Your task to perform on an android device: Add "acer predator" to the cart on ebay.com Image 0: 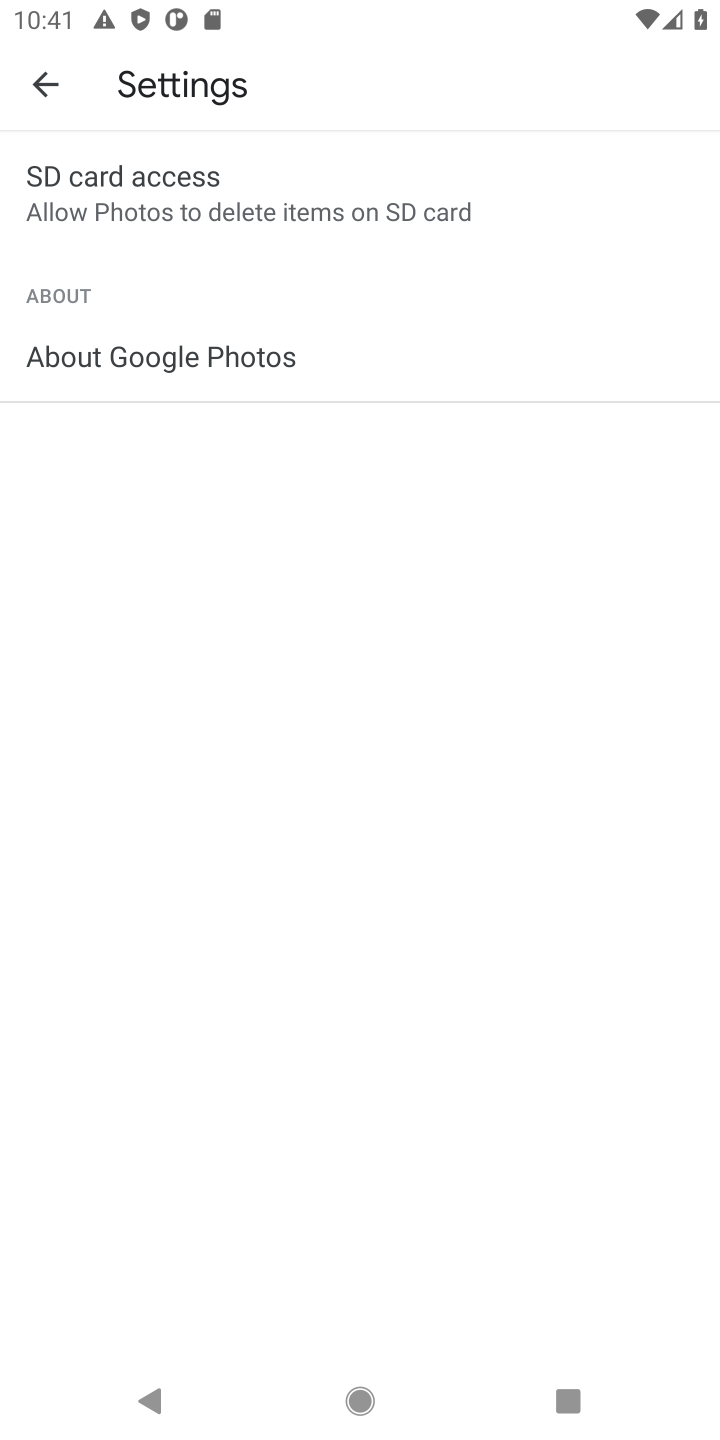
Step 0: press home button
Your task to perform on an android device: Add "acer predator" to the cart on ebay.com Image 1: 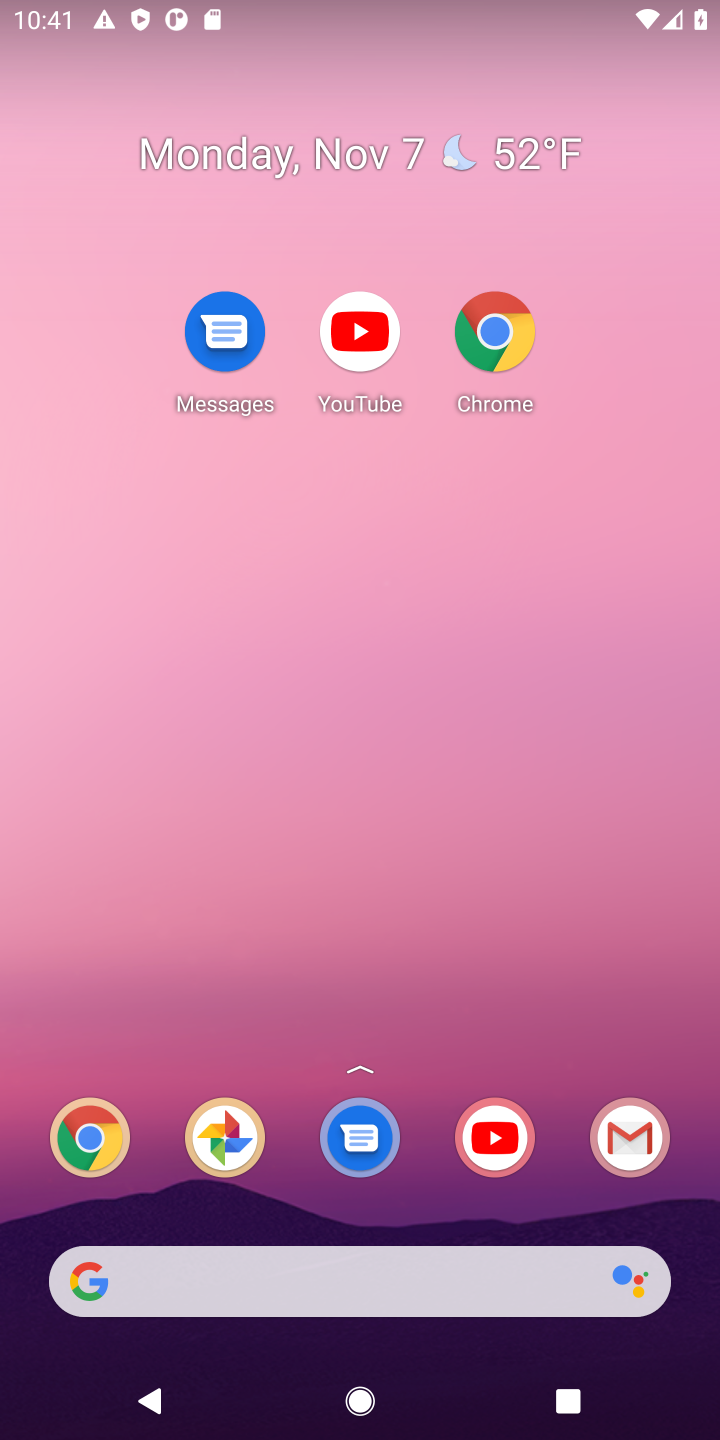
Step 1: drag from (436, 1241) to (326, 220)
Your task to perform on an android device: Add "acer predator" to the cart on ebay.com Image 2: 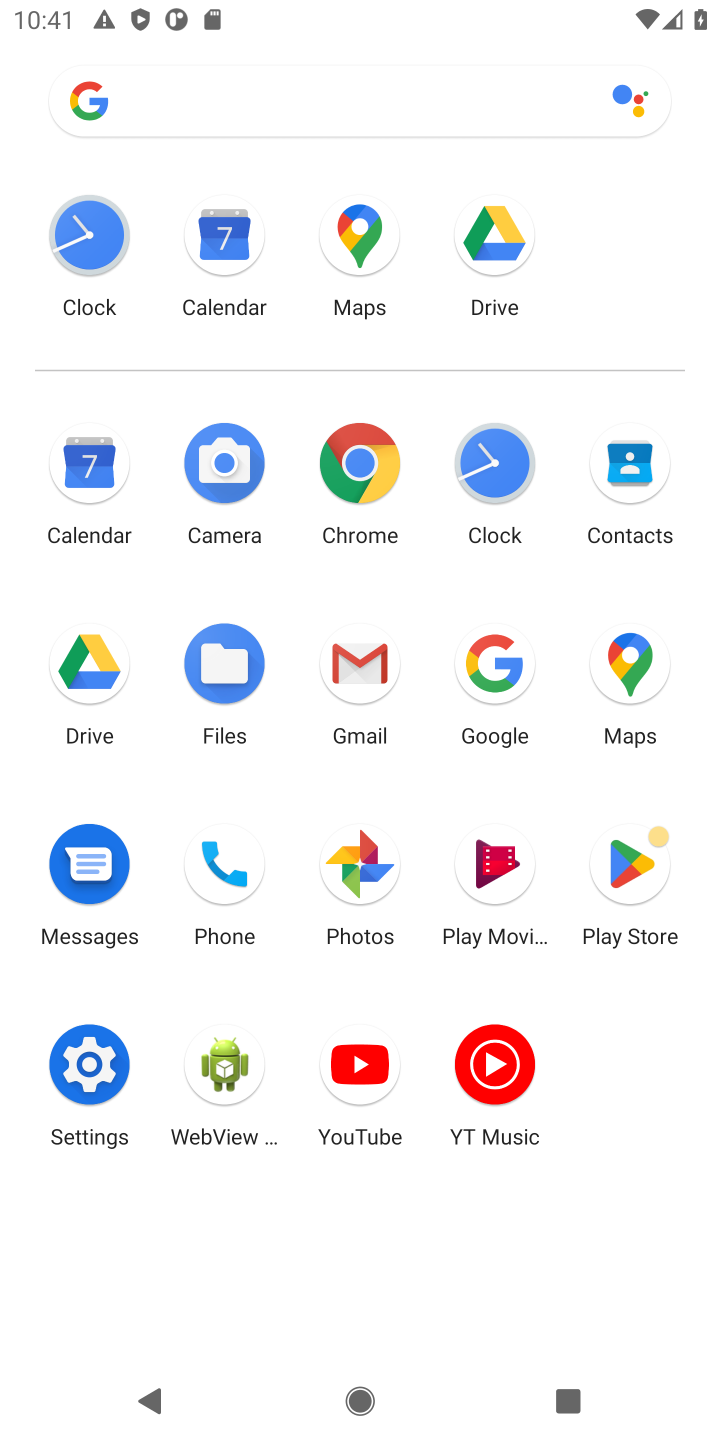
Step 2: click (354, 461)
Your task to perform on an android device: Add "acer predator" to the cart on ebay.com Image 3: 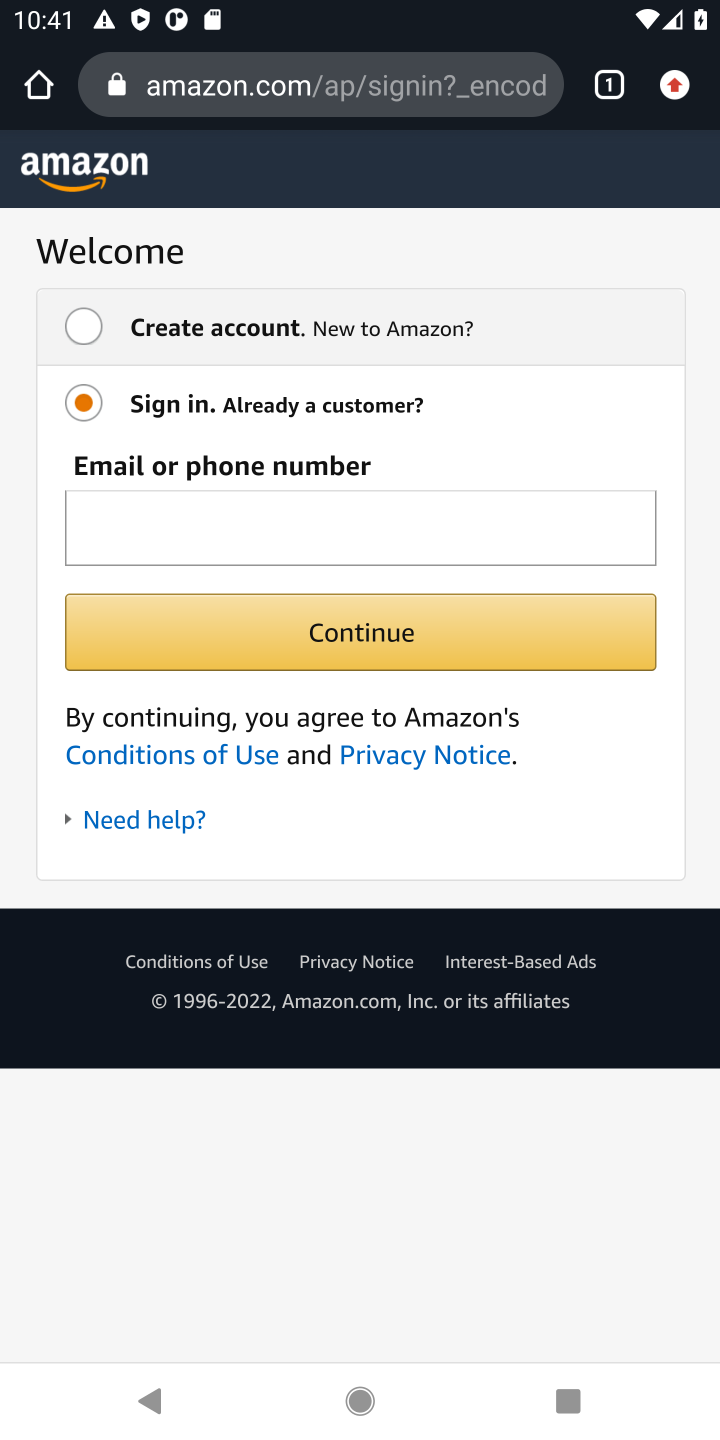
Step 3: click (429, 76)
Your task to perform on an android device: Add "acer predator" to the cart on ebay.com Image 4: 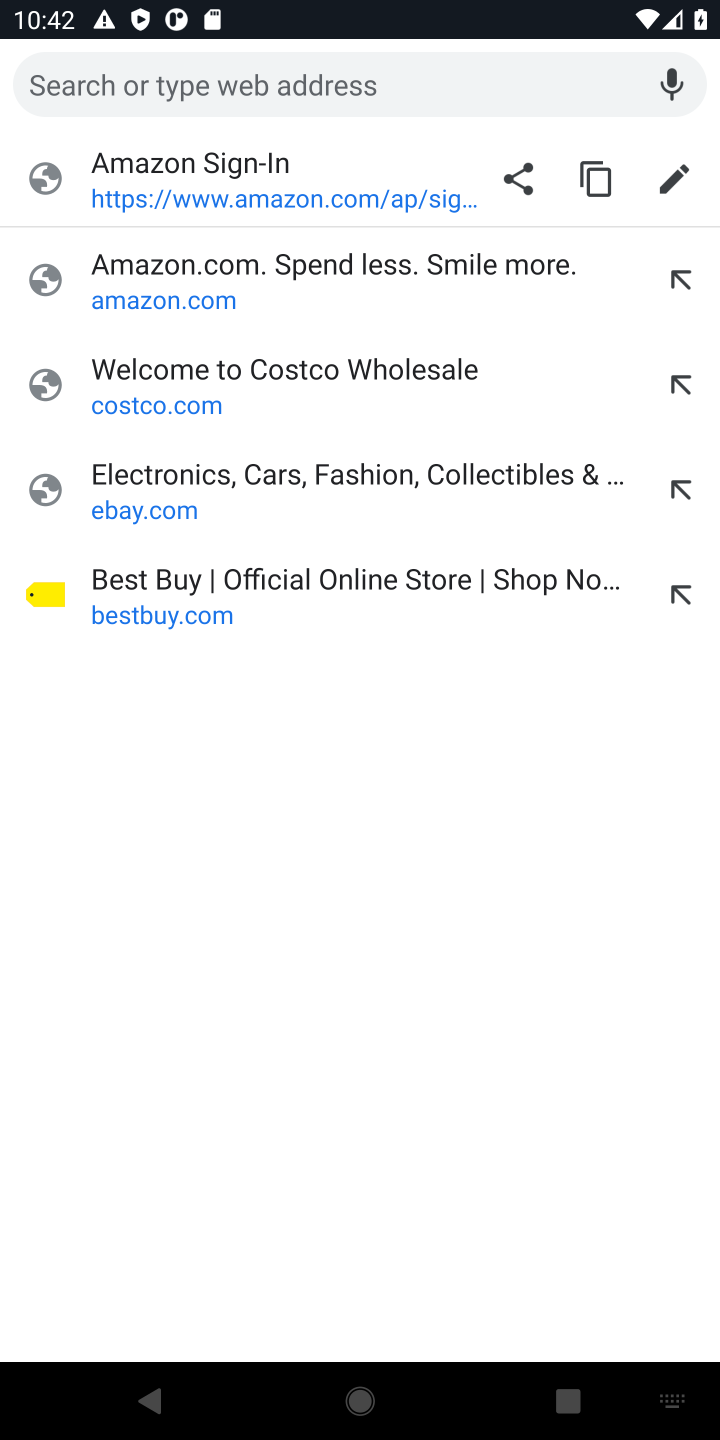
Step 4: type "ebay.com"
Your task to perform on an android device: Add "acer predator" to the cart on ebay.com Image 5: 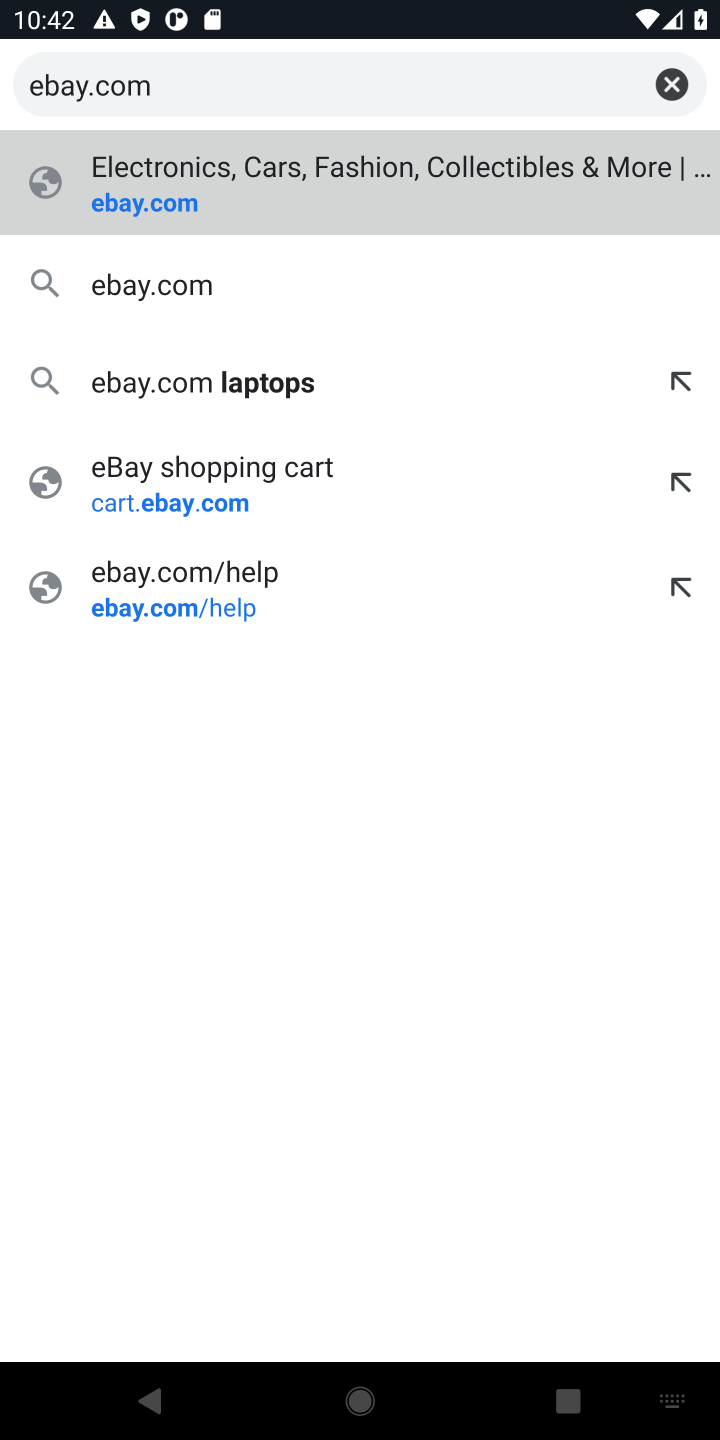
Step 5: press enter
Your task to perform on an android device: Add "acer predator" to the cart on ebay.com Image 6: 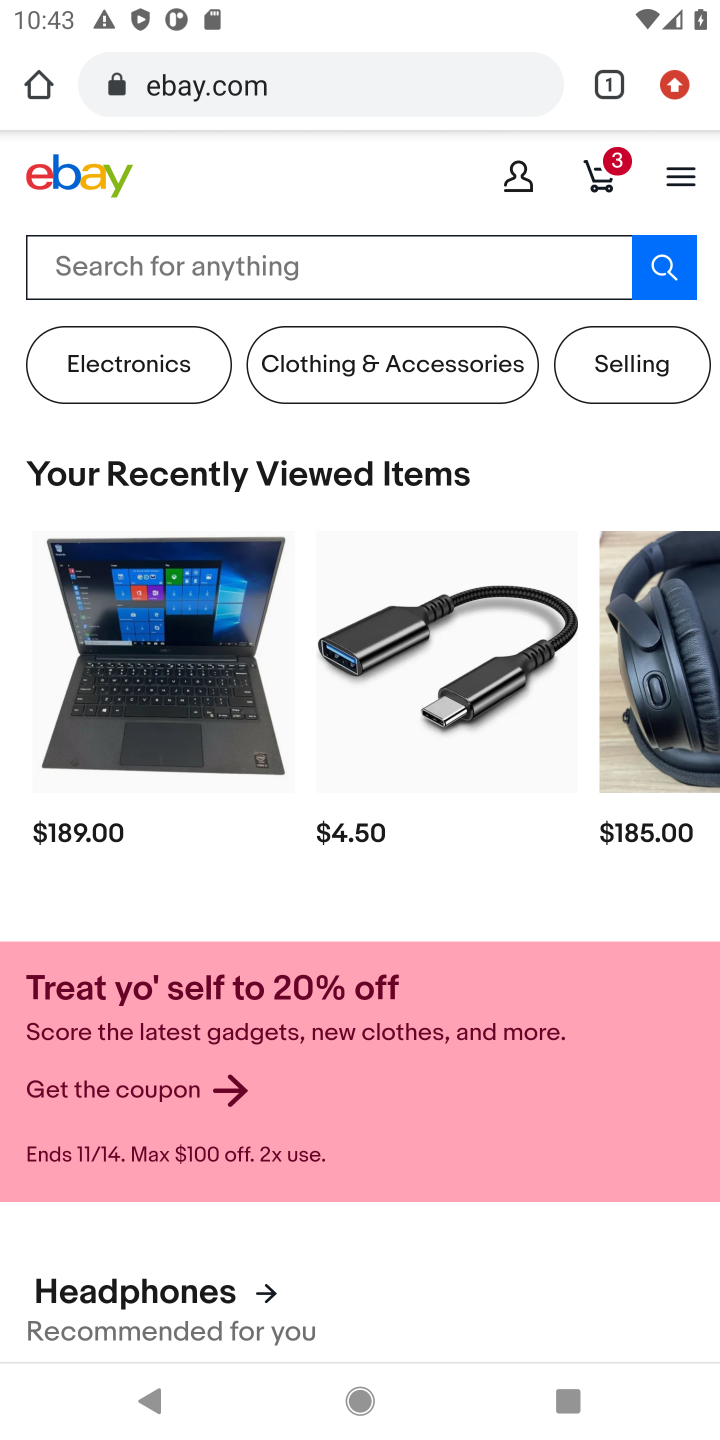
Step 6: click (452, 267)
Your task to perform on an android device: Add "acer predator" to the cart on ebay.com Image 7: 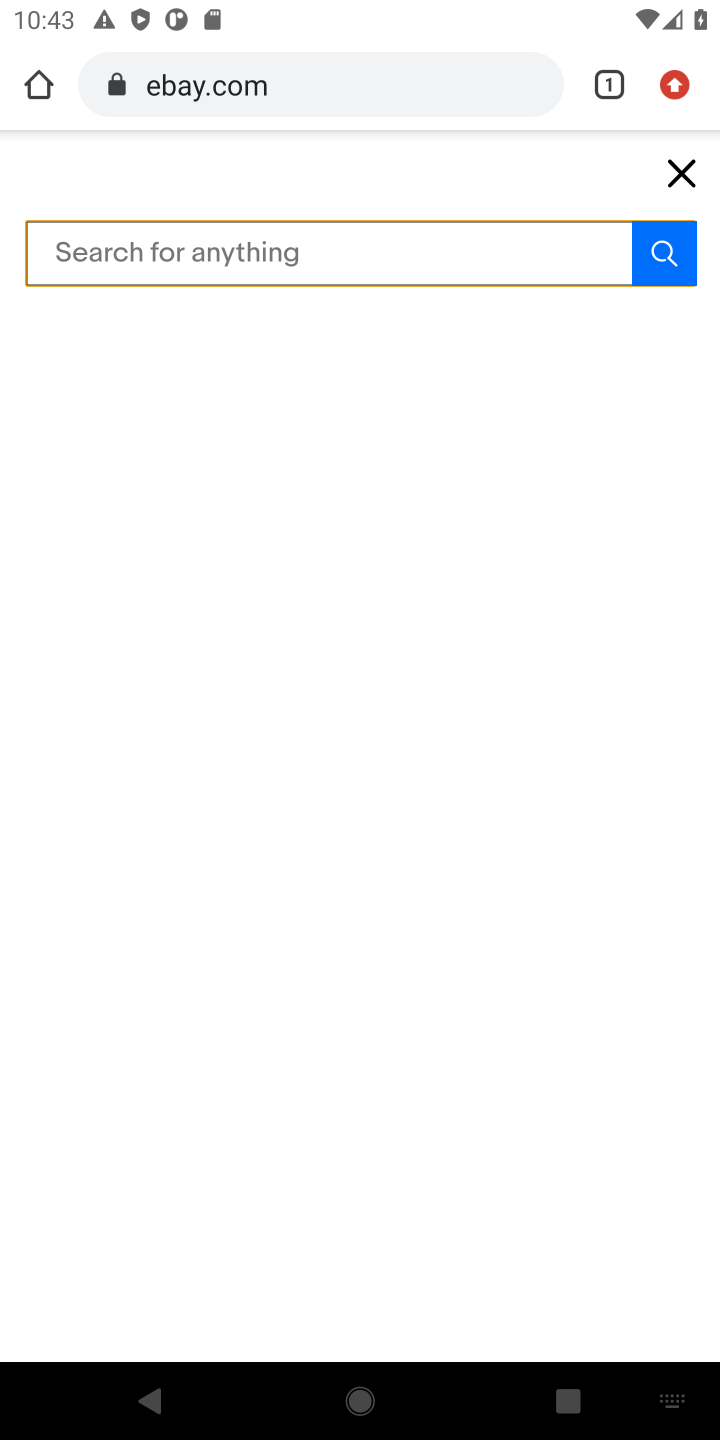
Step 7: type "acer predator"
Your task to perform on an android device: Add "acer predator" to the cart on ebay.com Image 8: 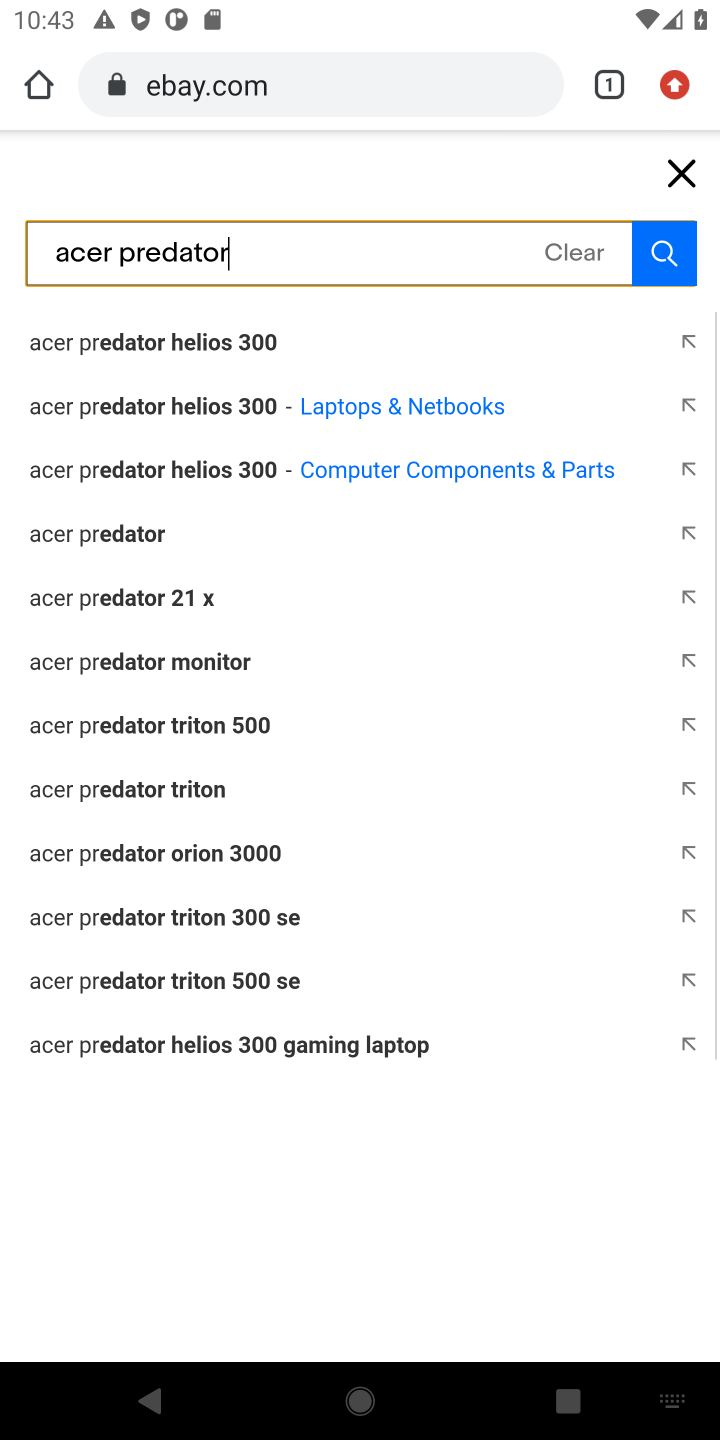
Step 8: press enter
Your task to perform on an android device: Add "acer predator" to the cart on ebay.com Image 9: 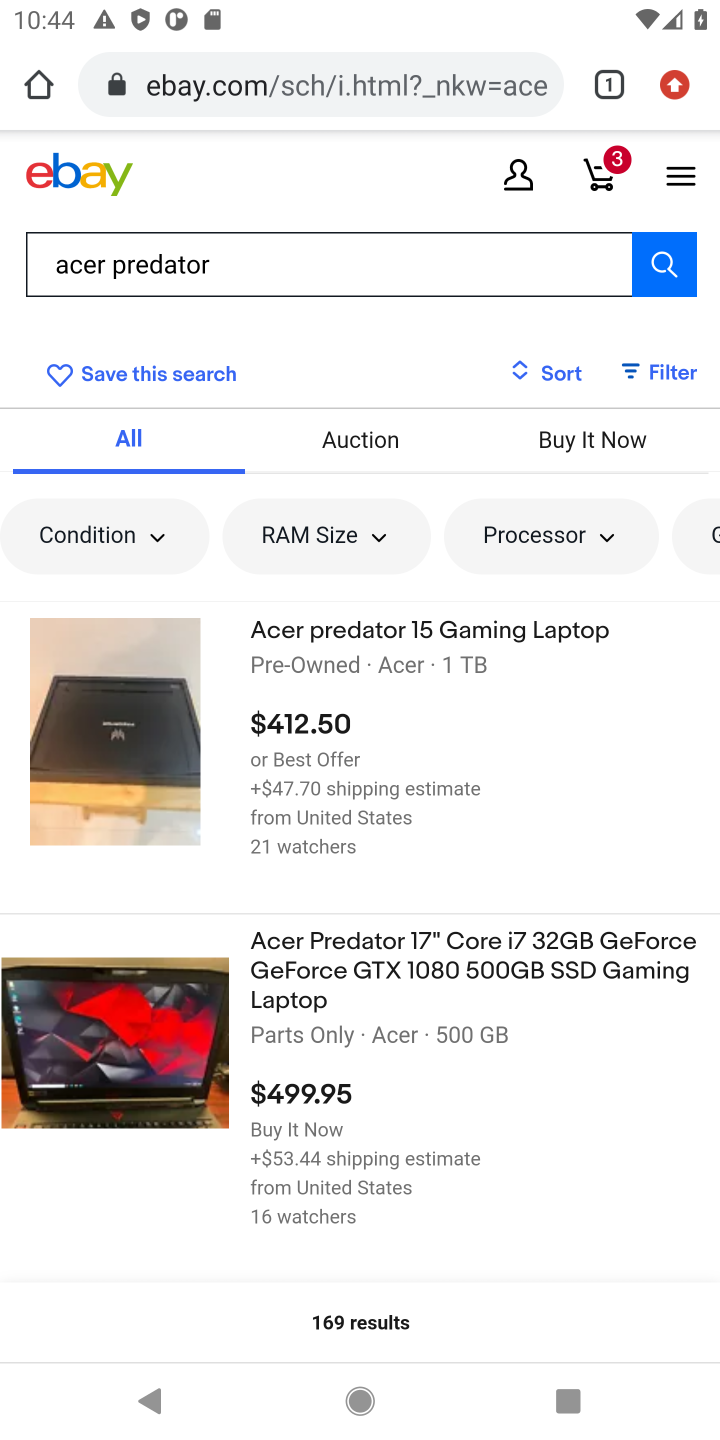
Step 9: click (111, 754)
Your task to perform on an android device: Add "acer predator" to the cart on ebay.com Image 10: 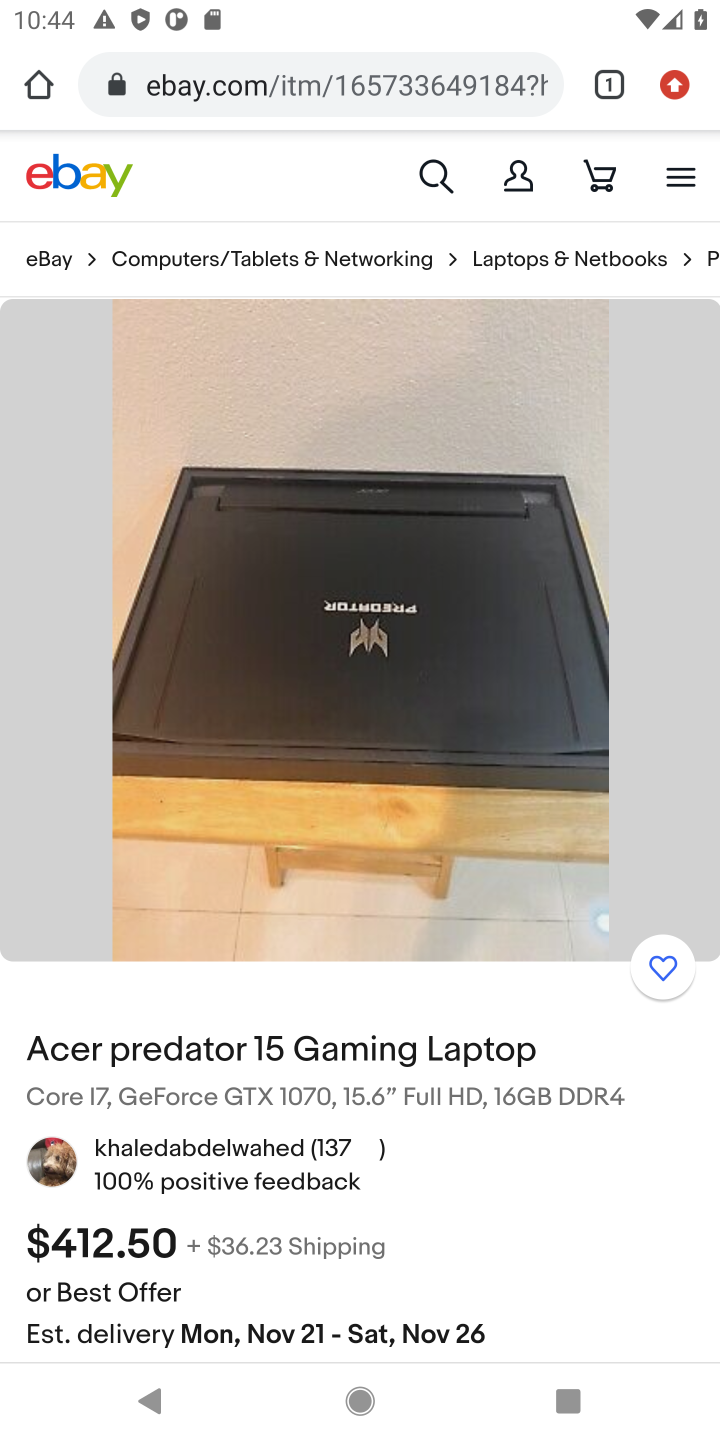
Step 10: drag from (567, 1020) to (567, 197)
Your task to perform on an android device: Add "acer predator" to the cart on ebay.com Image 11: 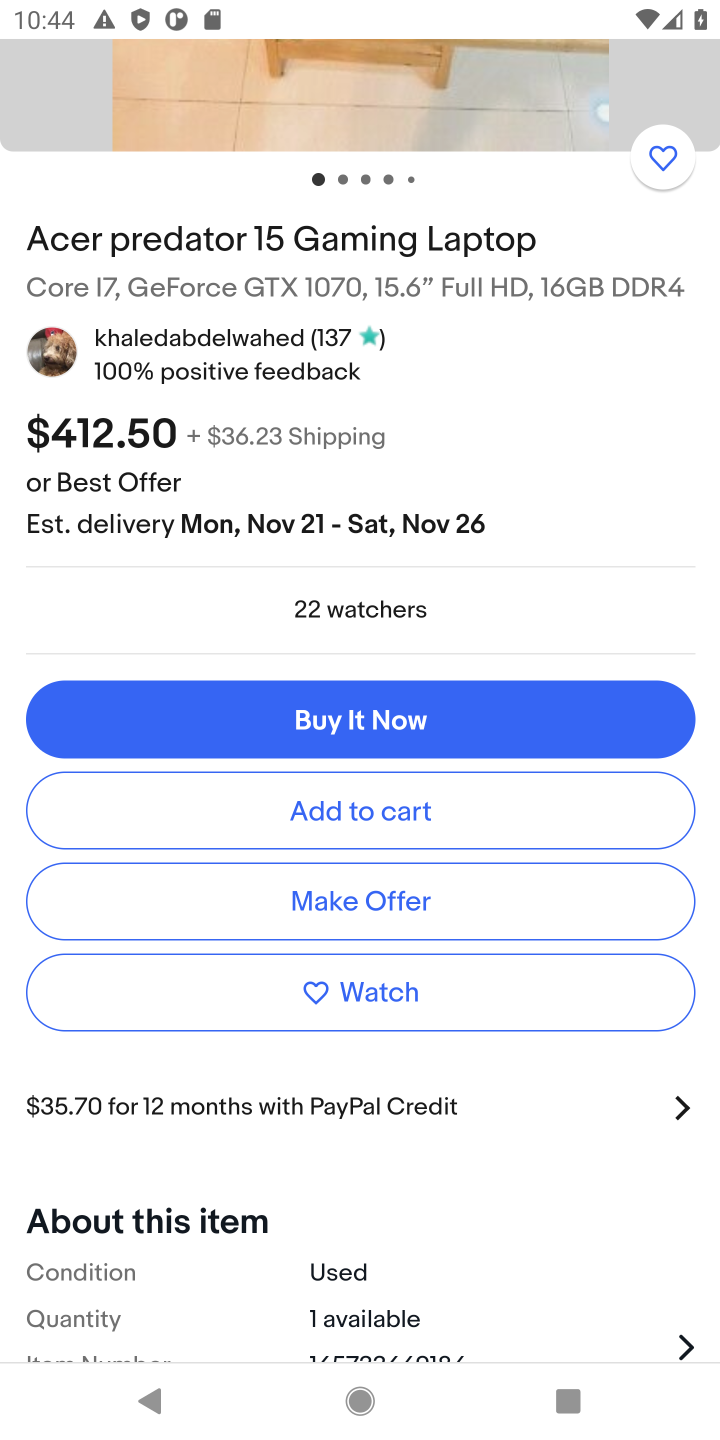
Step 11: press back button
Your task to perform on an android device: Add "acer predator" to the cart on ebay.com Image 12: 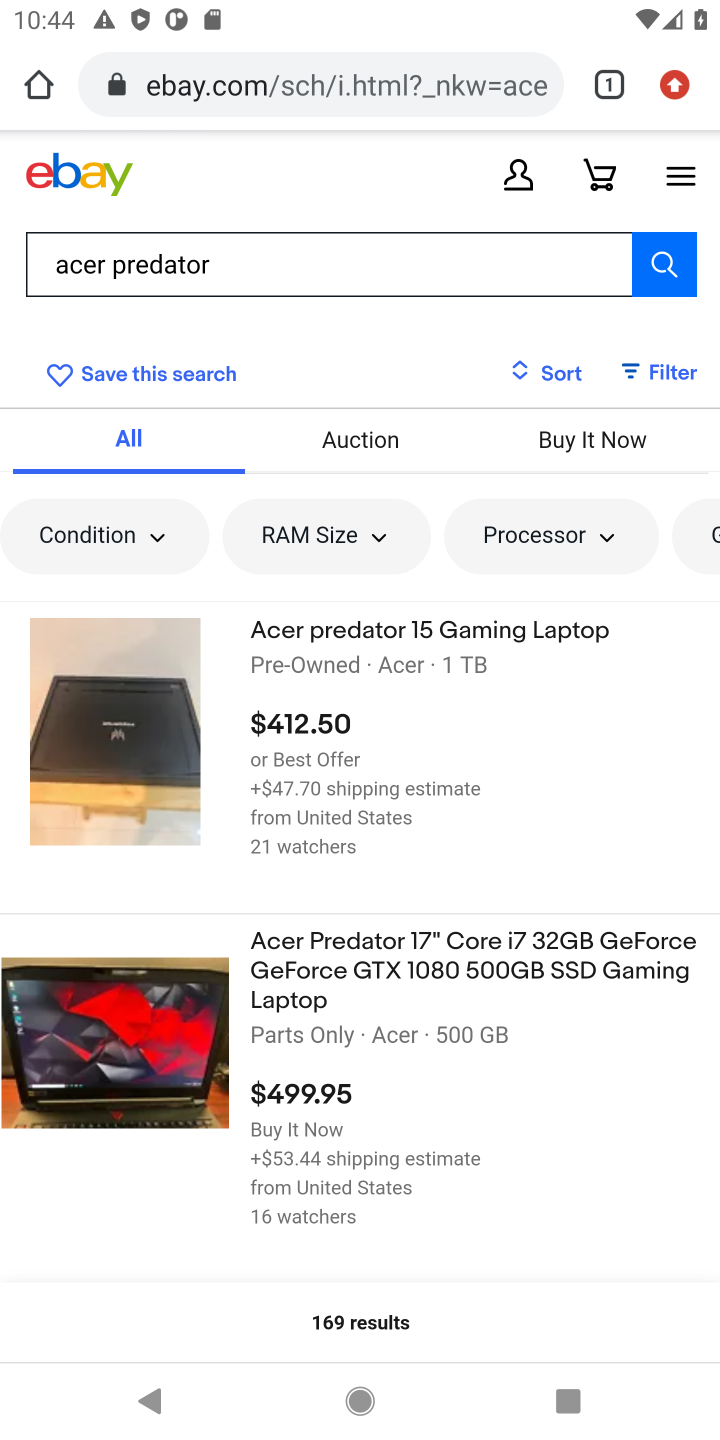
Step 12: click (148, 758)
Your task to perform on an android device: Add "acer predator" to the cart on ebay.com Image 13: 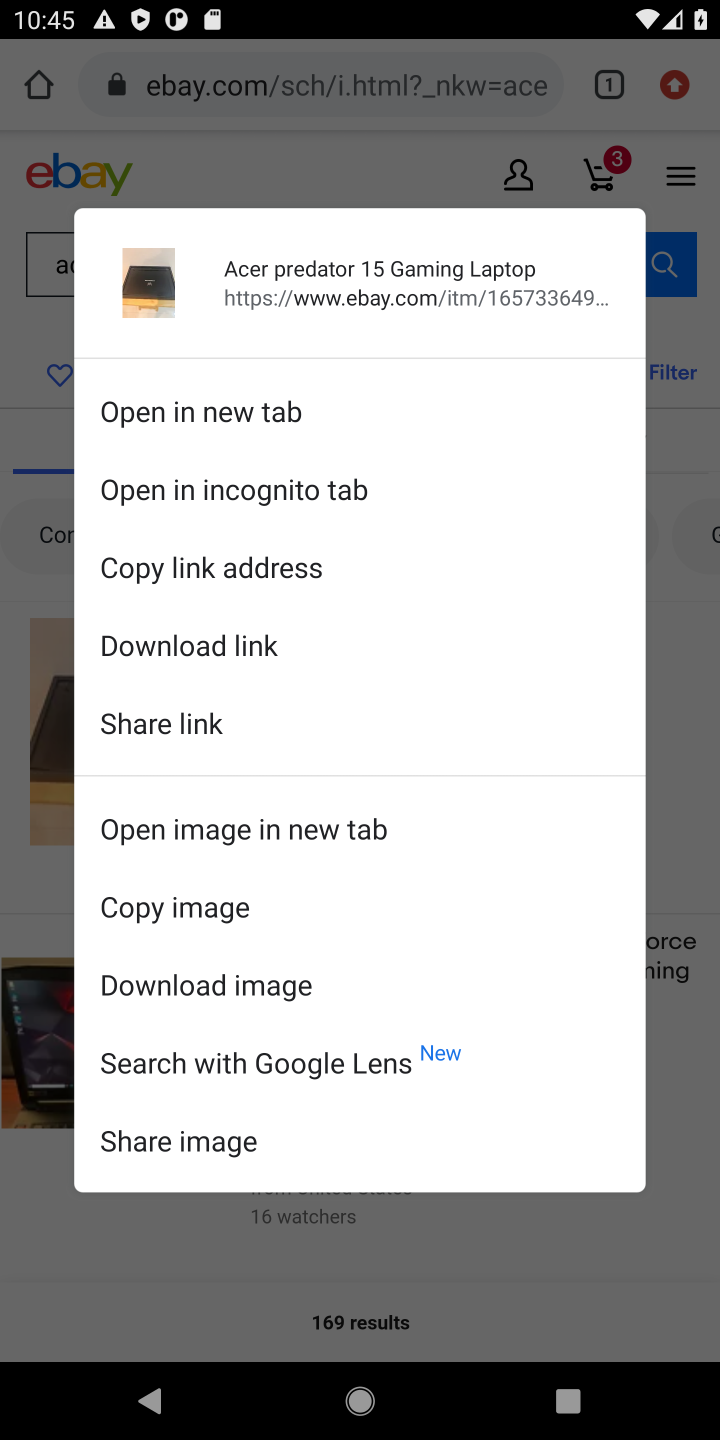
Step 13: click (668, 521)
Your task to perform on an android device: Add "acer predator" to the cart on ebay.com Image 14: 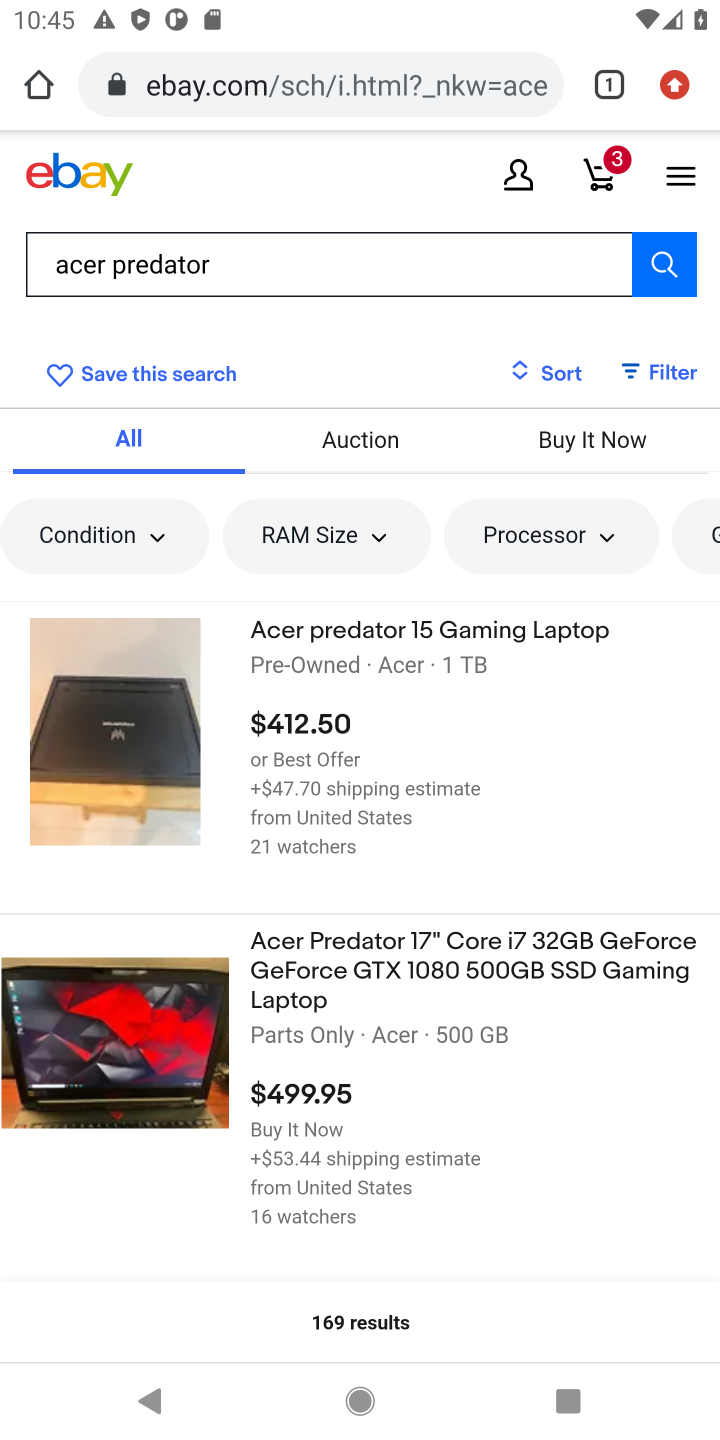
Step 14: click (106, 700)
Your task to perform on an android device: Add "acer predator" to the cart on ebay.com Image 15: 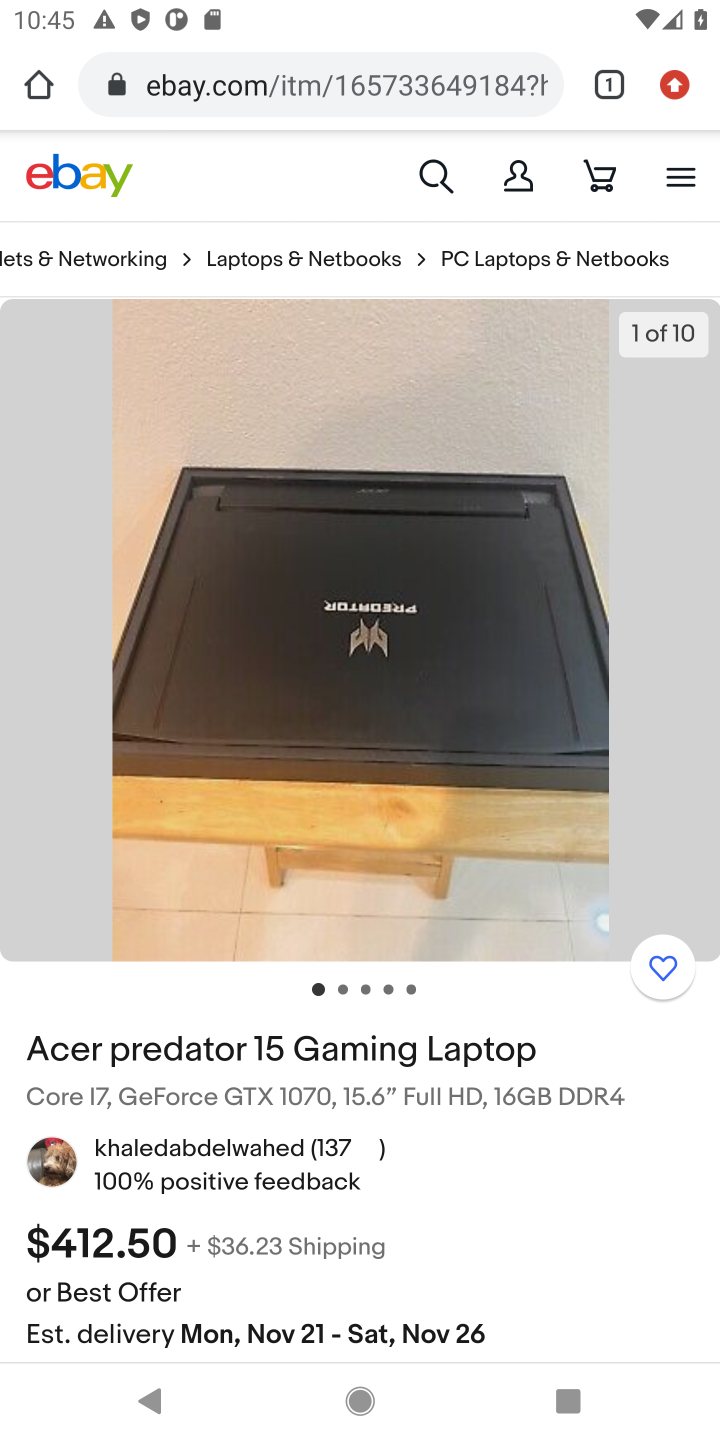
Step 15: drag from (312, 1152) to (443, 473)
Your task to perform on an android device: Add "acer predator" to the cart on ebay.com Image 16: 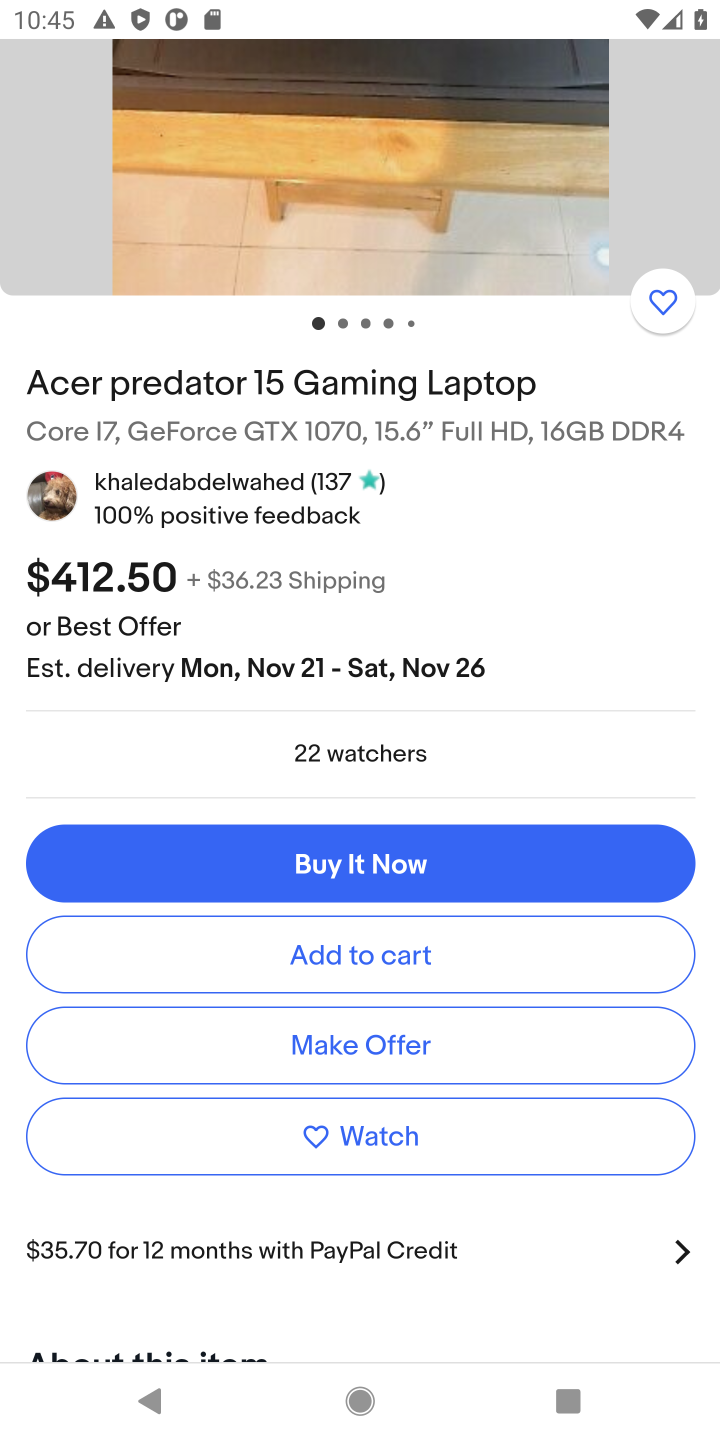
Step 16: click (406, 948)
Your task to perform on an android device: Add "acer predator" to the cart on ebay.com Image 17: 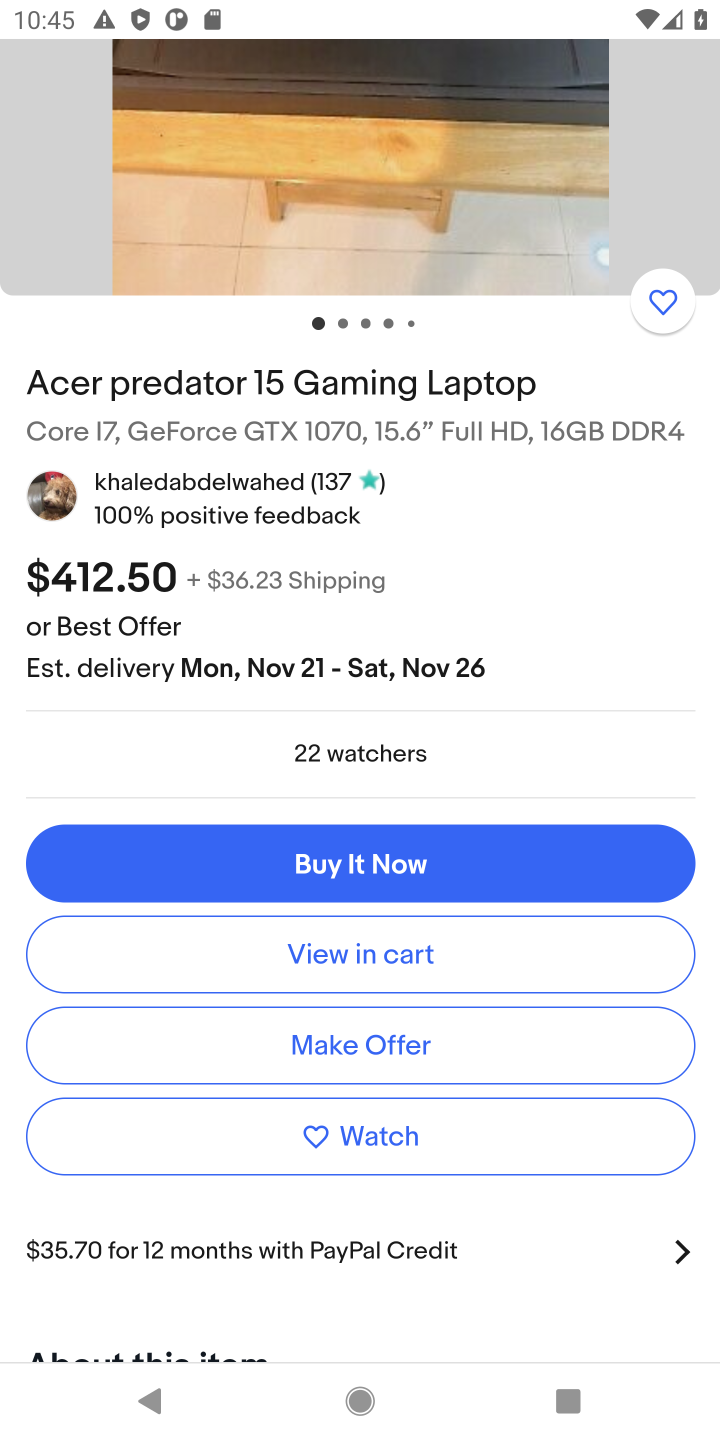
Step 17: task complete